Your task to perform on an android device: turn on the 12-hour format for clock Image 0: 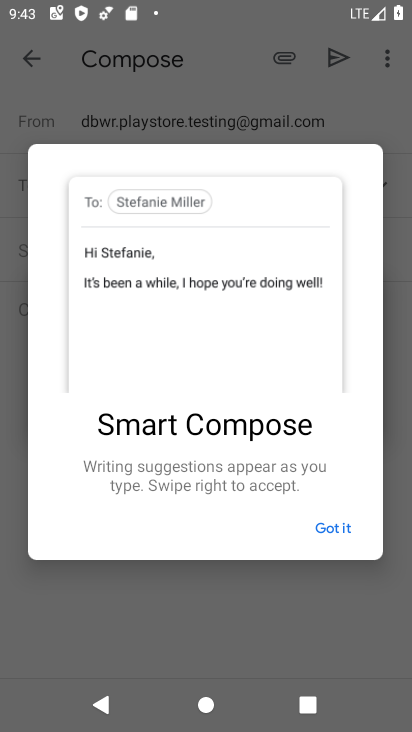
Step 0: press home button
Your task to perform on an android device: turn on the 12-hour format for clock Image 1: 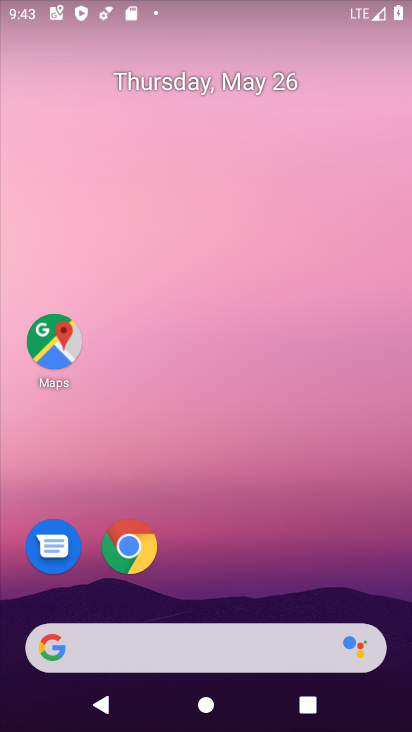
Step 1: drag from (377, 570) to (376, 200)
Your task to perform on an android device: turn on the 12-hour format for clock Image 2: 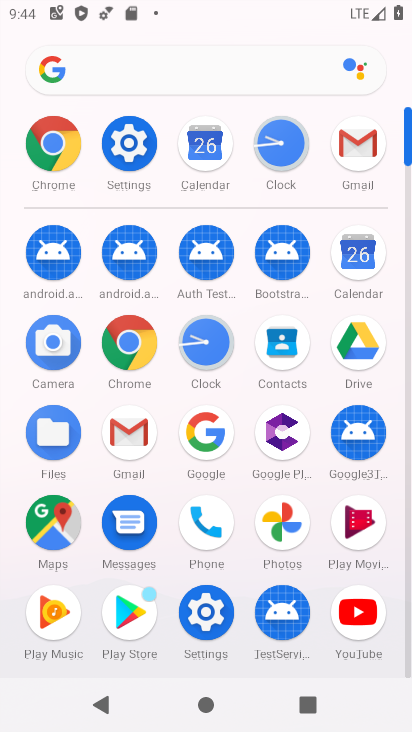
Step 2: click (205, 356)
Your task to perform on an android device: turn on the 12-hour format for clock Image 3: 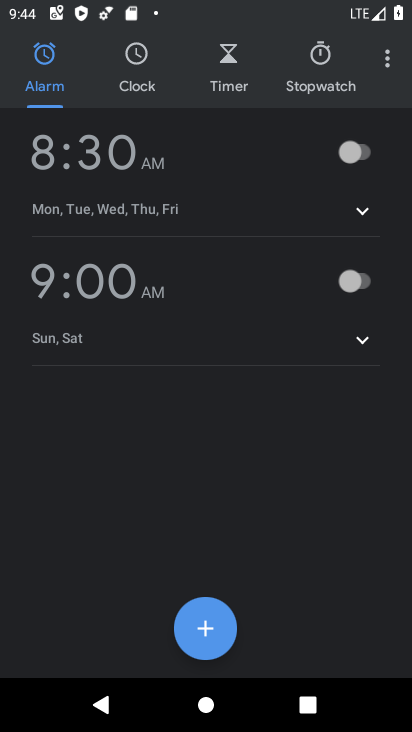
Step 3: click (395, 71)
Your task to perform on an android device: turn on the 12-hour format for clock Image 4: 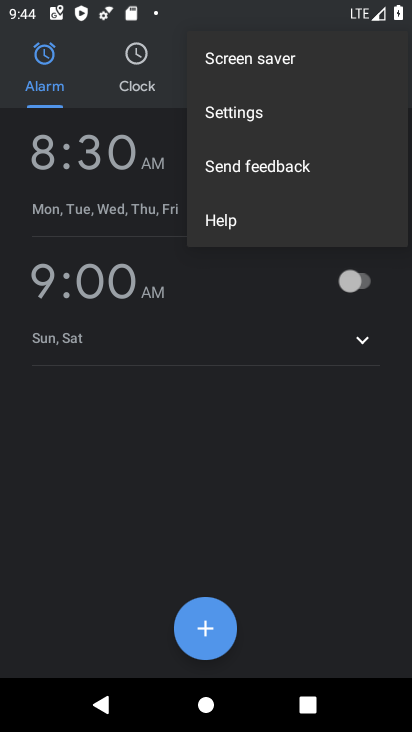
Step 4: click (252, 122)
Your task to perform on an android device: turn on the 12-hour format for clock Image 5: 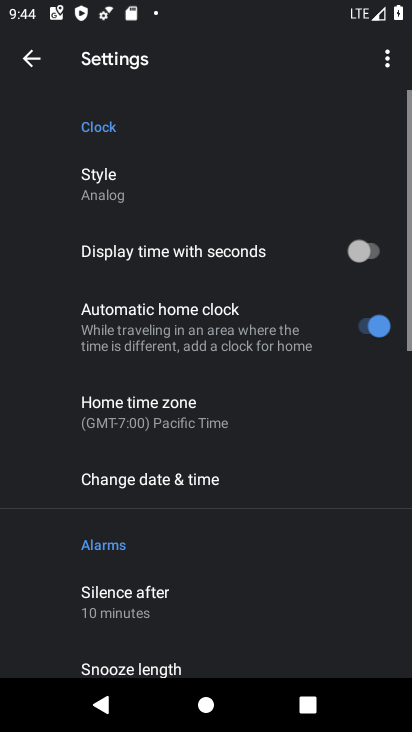
Step 5: drag from (187, 519) to (207, 365)
Your task to perform on an android device: turn on the 12-hour format for clock Image 6: 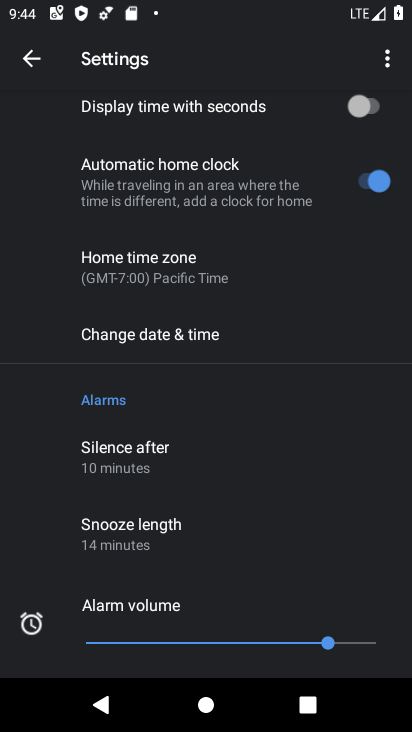
Step 6: click (203, 335)
Your task to perform on an android device: turn on the 12-hour format for clock Image 7: 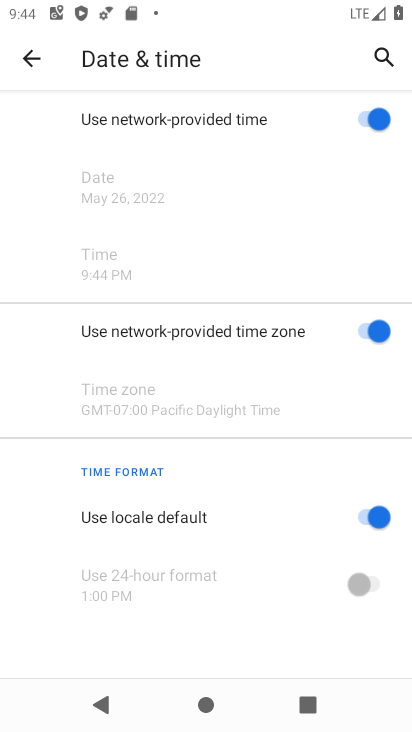
Step 7: task complete